Your task to perform on an android device: show emergency info Image 0: 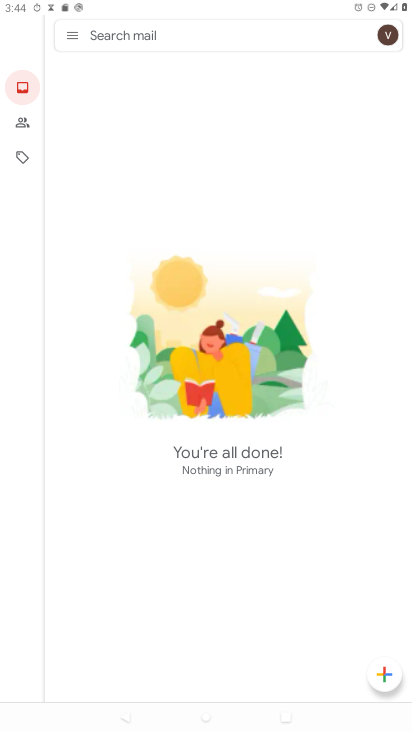
Step 0: press home button
Your task to perform on an android device: show emergency info Image 1: 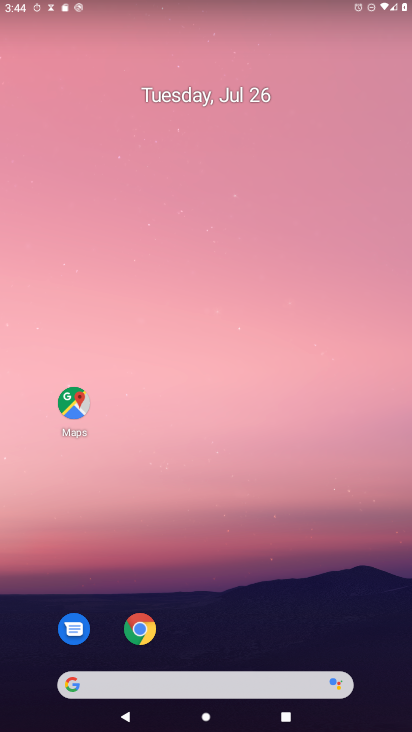
Step 1: drag from (218, 588) to (312, 7)
Your task to perform on an android device: show emergency info Image 2: 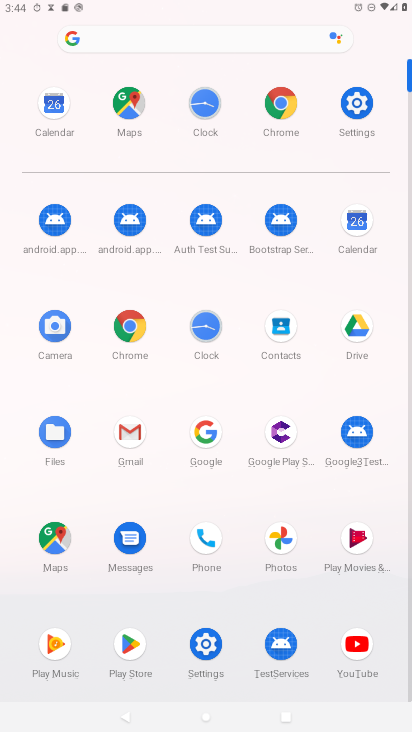
Step 2: click (356, 101)
Your task to perform on an android device: show emergency info Image 3: 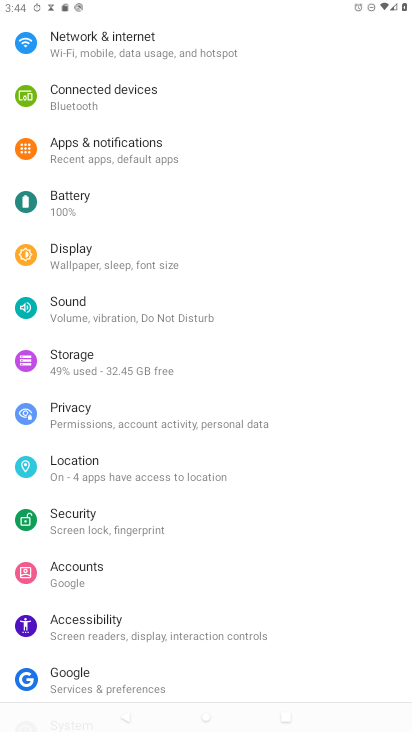
Step 3: drag from (306, 660) to (228, 6)
Your task to perform on an android device: show emergency info Image 4: 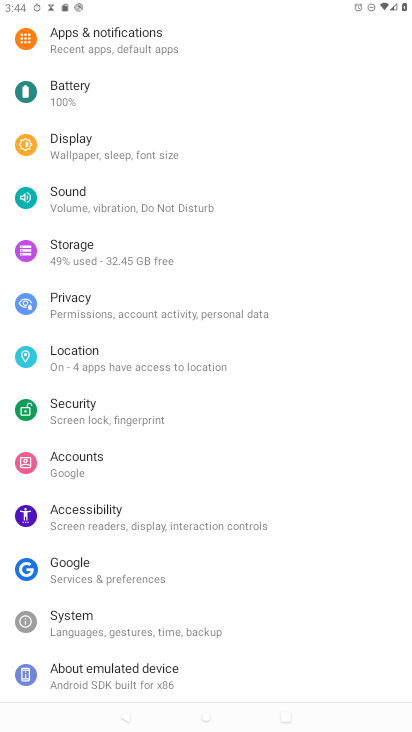
Step 4: click (192, 692)
Your task to perform on an android device: show emergency info Image 5: 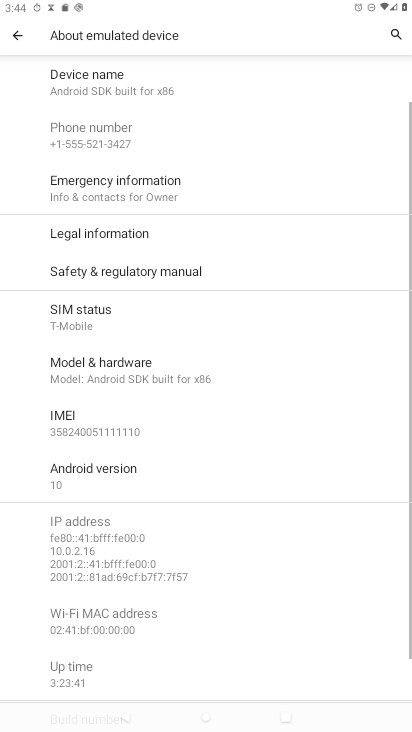
Step 5: click (200, 193)
Your task to perform on an android device: show emergency info Image 6: 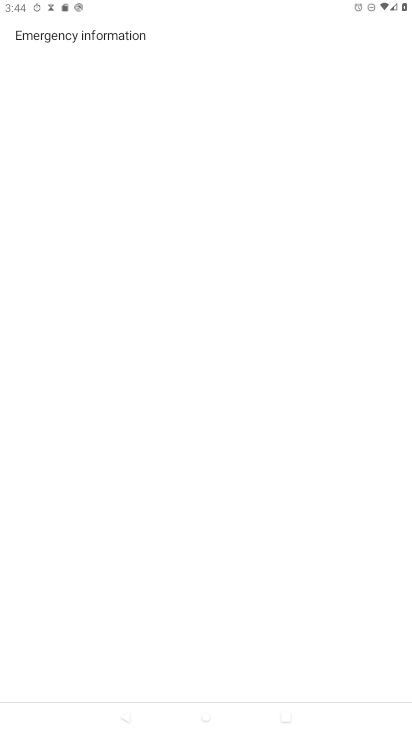
Step 6: task complete